Your task to perform on an android device: turn on notifications settings in the gmail app Image 0: 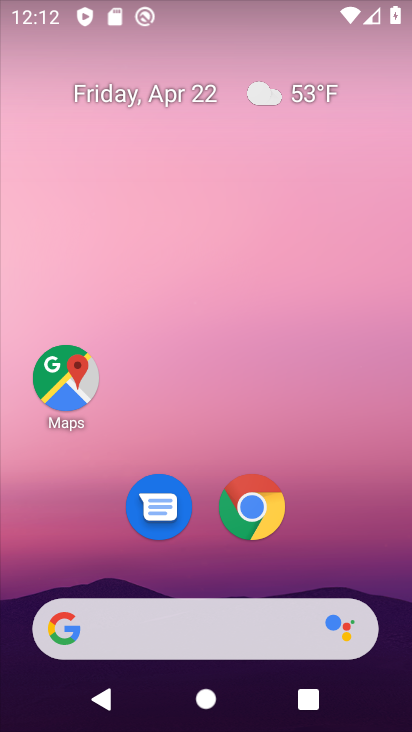
Step 0: drag from (219, 596) to (36, 225)
Your task to perform on an android device: turn on notifications settings in the gmail app Image 1: 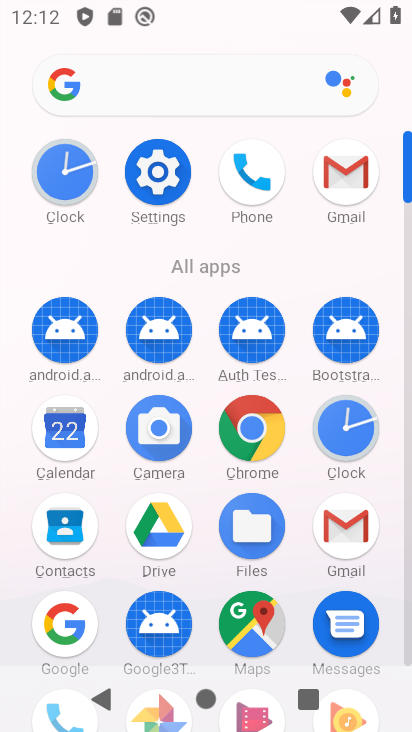
Step 1: click (344, 575)
Your task to perform on an android device: turn on notifications settings in the gmail app Image 2: 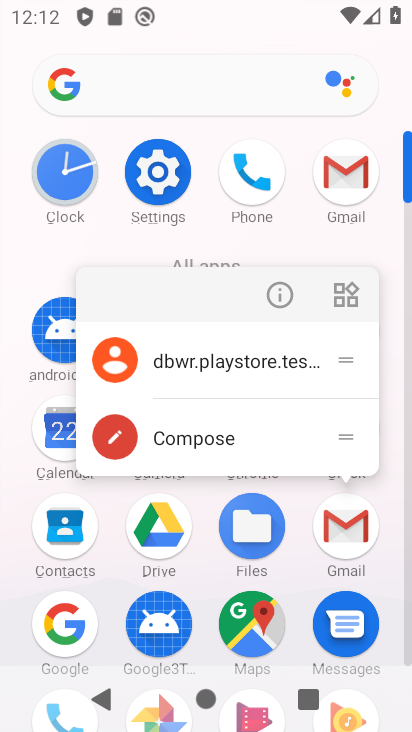
Step 2: click (342, 558)
Your task to perform on an android device: turn on notifications settings in the gmail app Image 3: 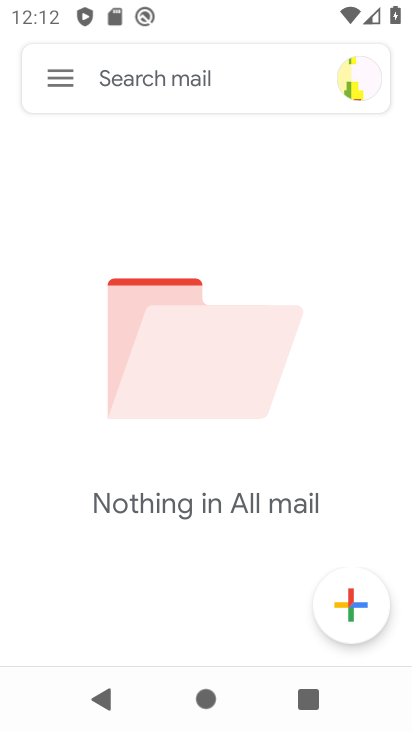
Step 3: click (50, 63)
Your task to perform on an android device: turn on notifications settings in the gmail app Image 4: 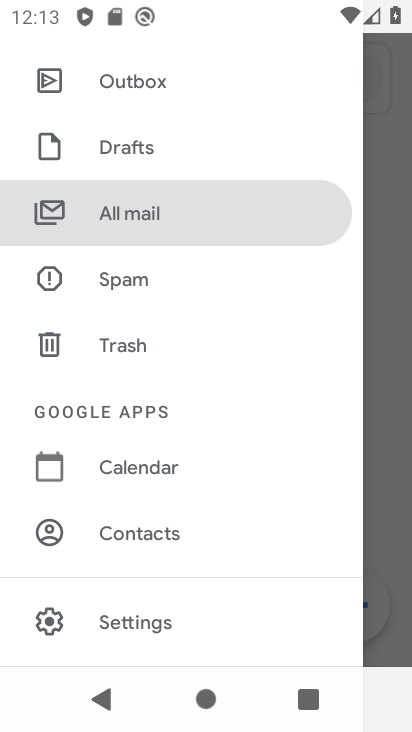
Step 4: click (161, 618)
Your task to perform on an android device: turn on notifications settings in the gmail app Image 5: 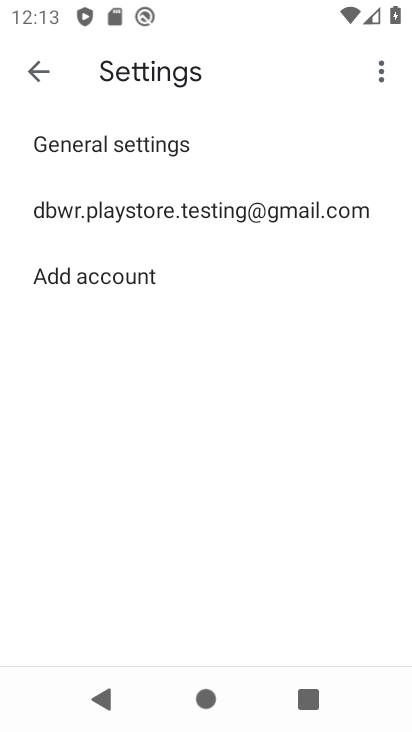
Step 5: click (225, 210)
Your task to perform on an android device: turn on notifications settings in the gmail app Image 6: 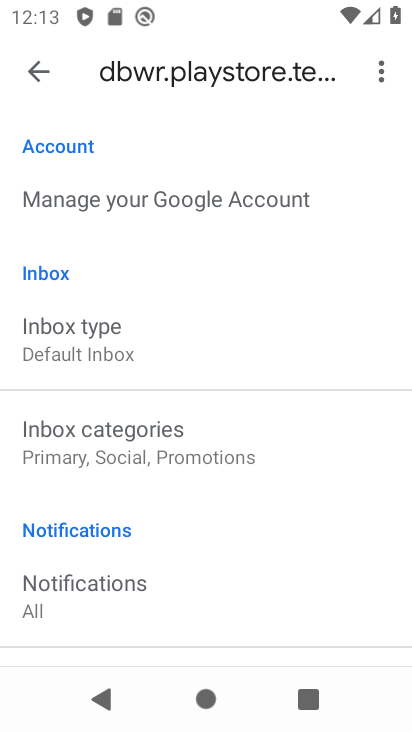
Step 6: drag from (113, 590) to (108, 192)
Your task to perform on an android device: turn on notifications settings in the gmail app Image 7: 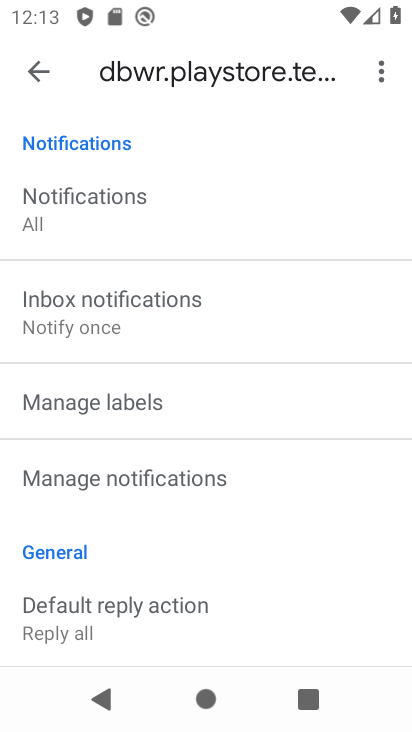
Step 7: click (152, 476)
Your task to perform on an android device: turn on notifications settings in the gmail app Image 8: 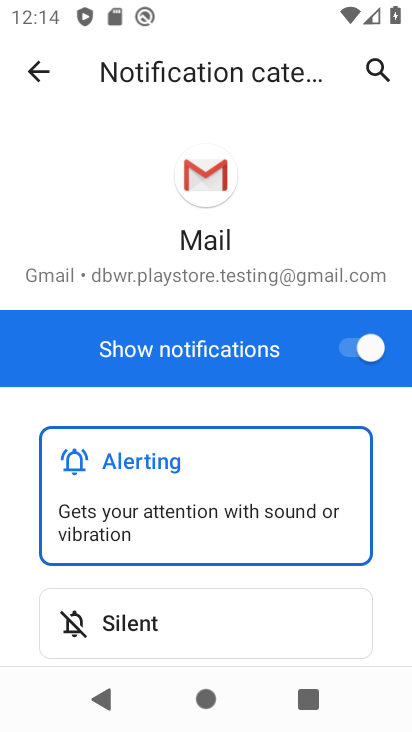
Step 8: task complete